Your task to perform on an android device: check battery use Image 0: 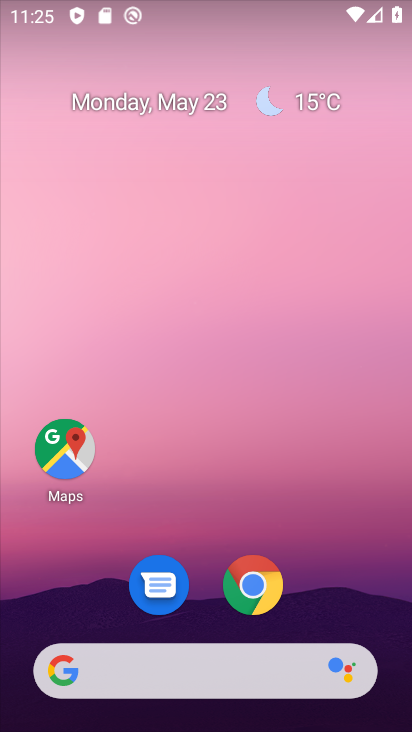
Step 0: drag from (263, 486) to (252, 15)
Your task to perform on an android device: check battery use Image 1: 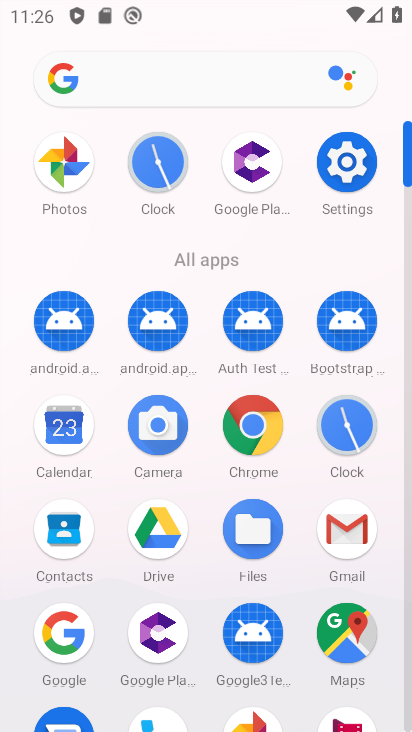
Step 1: click (336, 163)
Your task to perform on an android device: check battery use Image 2: 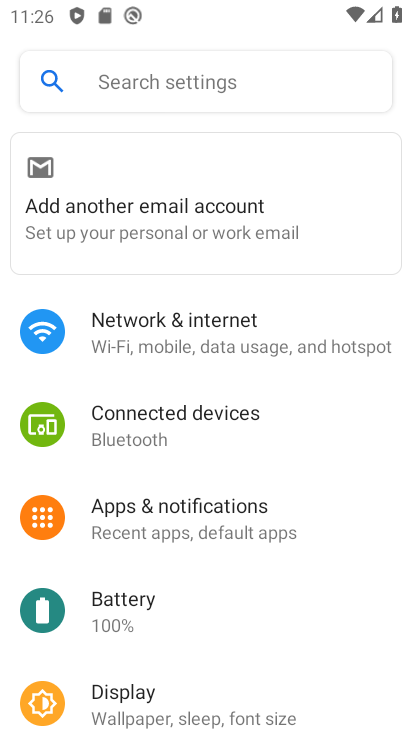
Step 2: click (143, 607)
Your task to perform on an android device: check battery use Image 3: 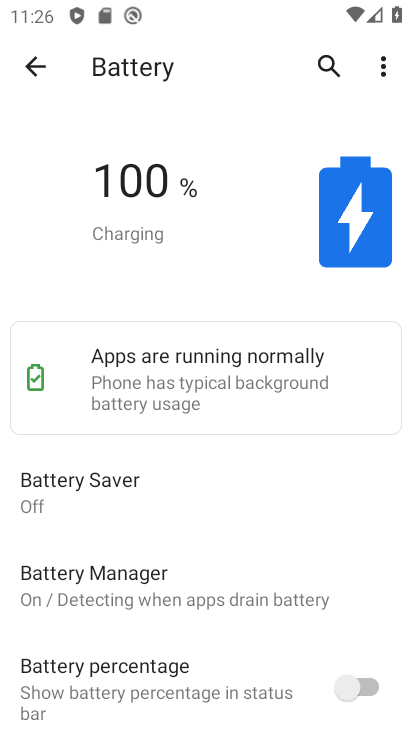
Step 3: task complete